Your task to perform on an android device: See recent photos Image 0: 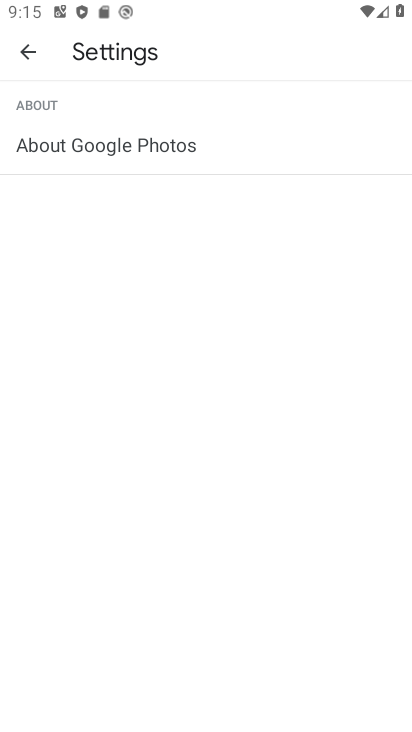
Step 0: press back button
Your task to perform on an android device: See recent photos Image 1: 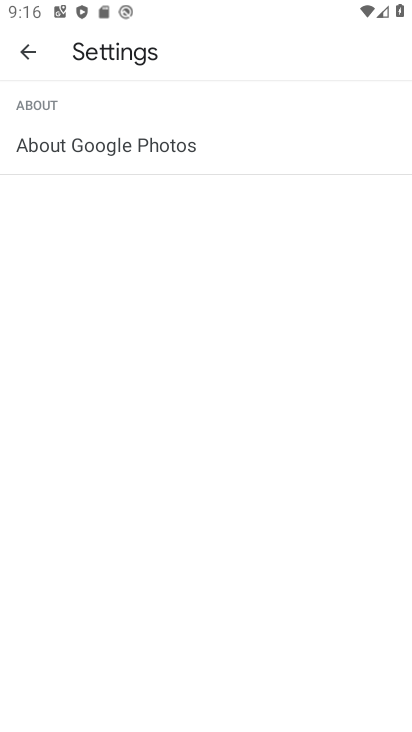
Step 1: click (22, 47)
Your task to perform on an android device: See recent photos Image 2: 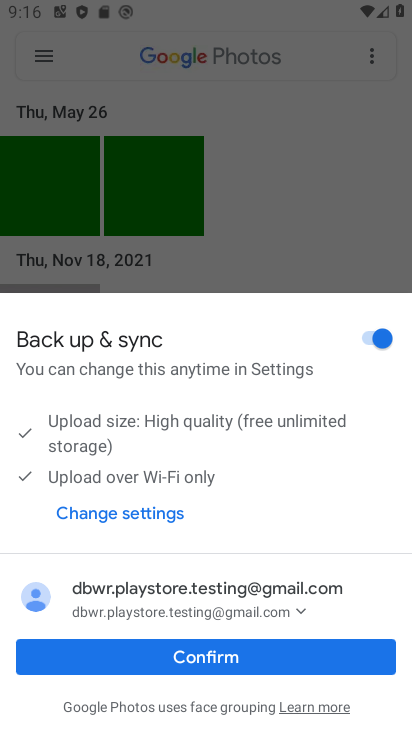
Step 2: click (217, 661)
Your task to perform on an android device: See recent photos Image 3: 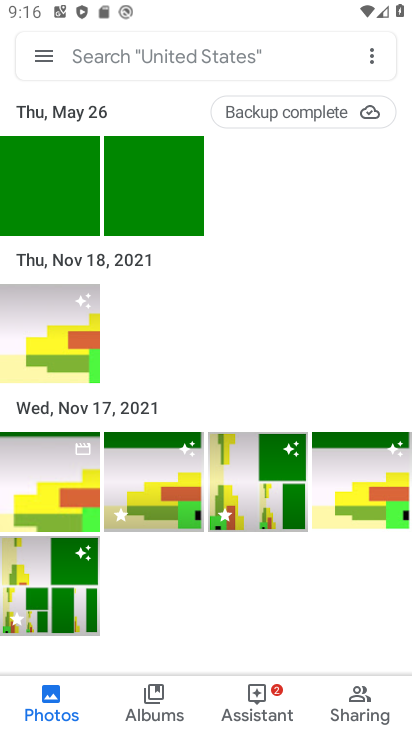
Step 3: task complete